Your task to perform on an android device: Open the calendar and show me this week's events? Image 0: 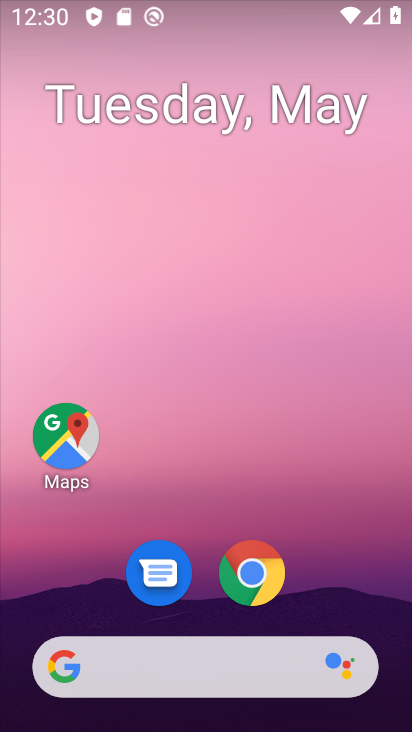
Step 0: drag from (344, 568) to (291, 106)
Your task to perform on an android device: Open the calendar and show me this week's events? Image 1: 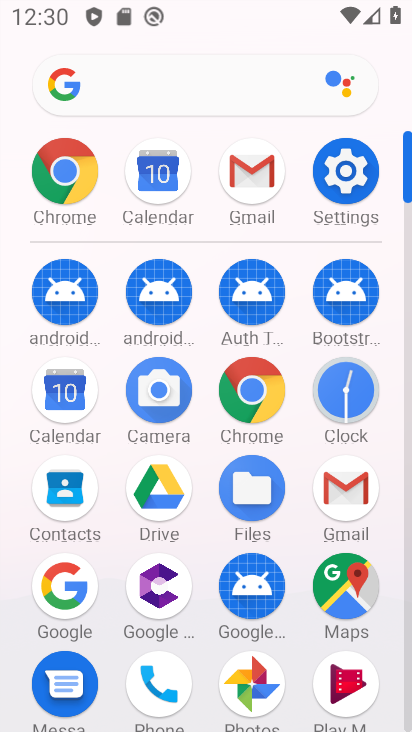
Step 1: click (65, 390)
Your task to perform on an android device: Open the calendar and show me this week's events? Image 2: 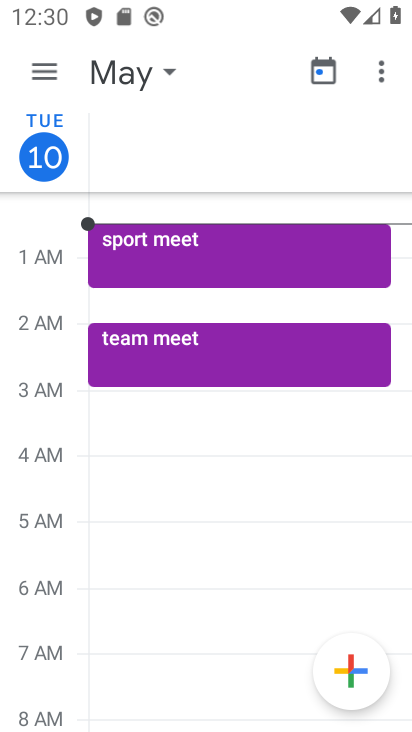
Step 2: click (138, 61)
Your task to perform on an android device: Open the calendar and show me this week's events? Image 3: 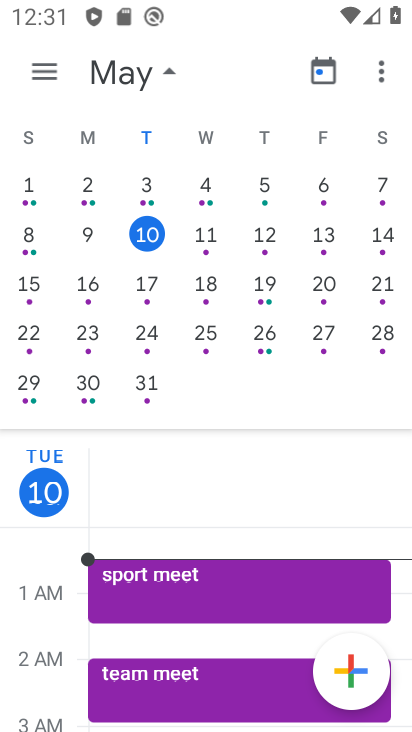
Step 3: click (197, 246)
Your task to perform on an android device: Open the calendar and show me this week's events? Image 4: 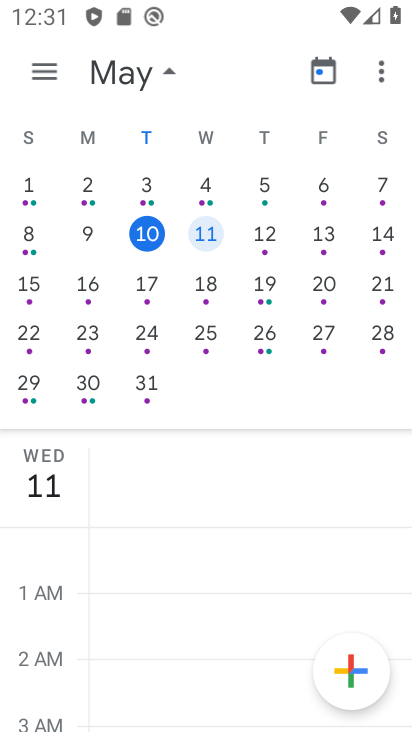
Step 4: task complete